Your task to perform on an android device: turn off priority inbox in the gmail app Image 0: 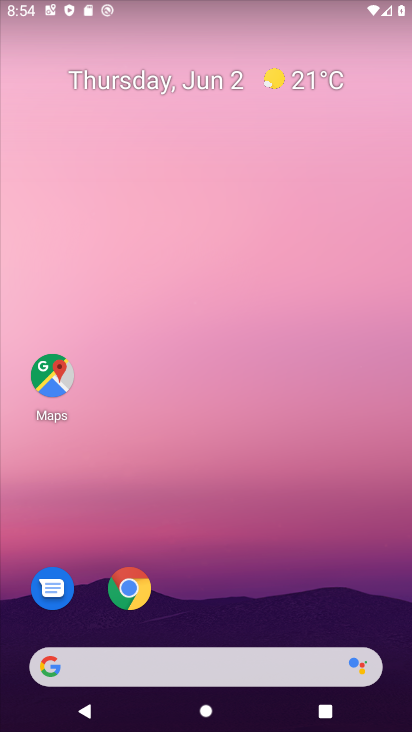
Step 0: press home button
Your task to perform on an android device: turn off priority inbox in the gmail app Image 1: 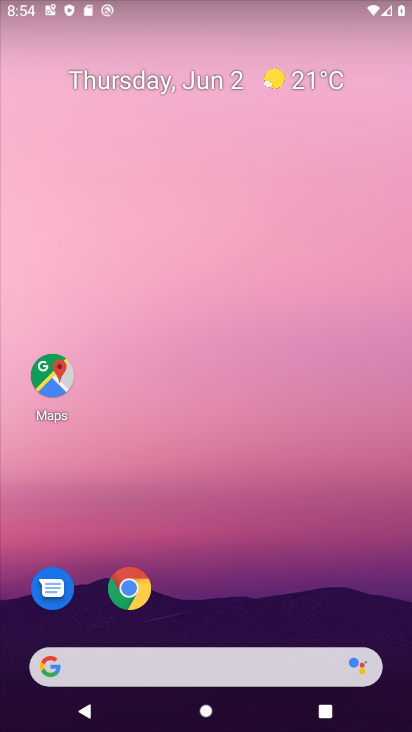
Step 1: drag from (210, 659) to (197, 136)
Your task to perform on an android device: turn off priority inbox in the gmail app Image 2: 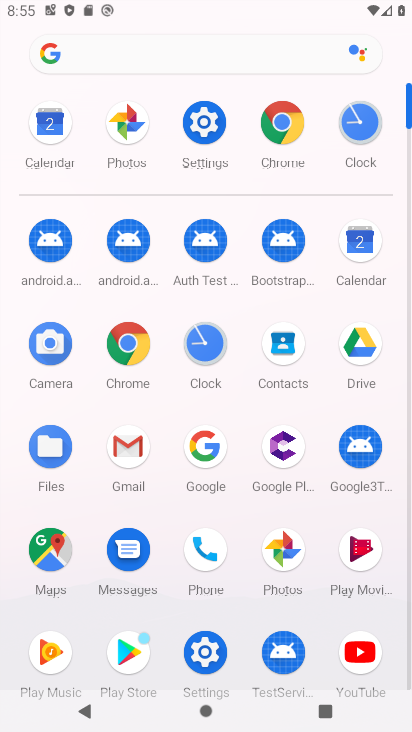
Step 2: click (131, 449)
Your task to perform on an android device: turn off priority inbox in the gmail app Image 3: 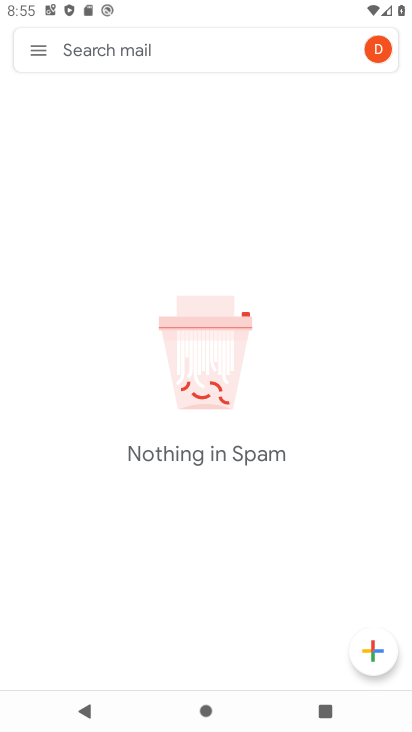
Step 3: click (34, 51)
Your task to perform on an android device: turn off priority inbox in the gmail app Image 4: 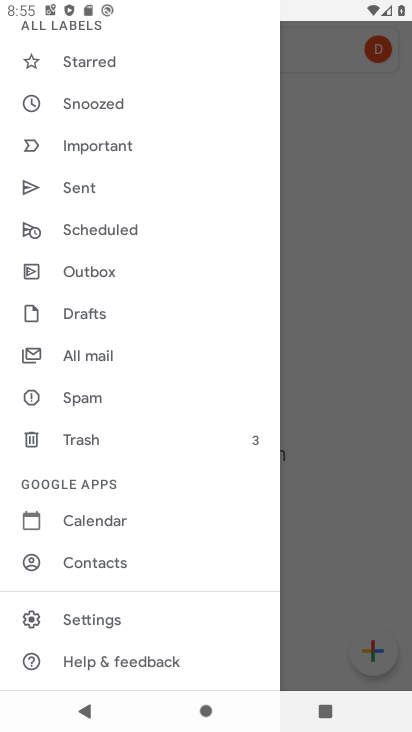
Step 4: click (102, 616)
Your task to perform on an android device: turn off priority inbox in the gmail app Image 5: 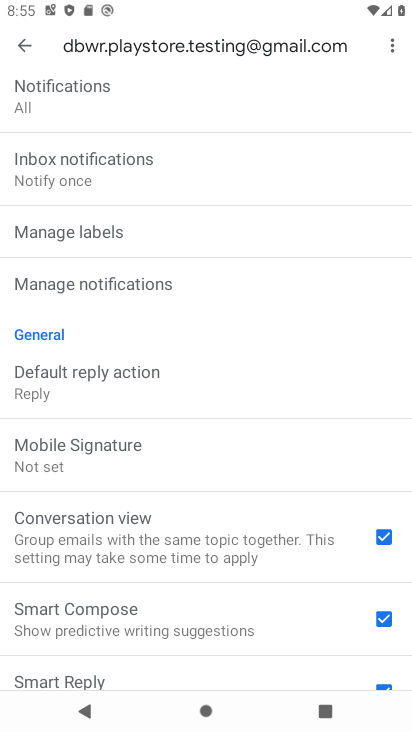
Step 5: drag from (149, 187) to (175, 729)
Your task to perform on an android device: turn off priority inbox in the gmail app Image 6: 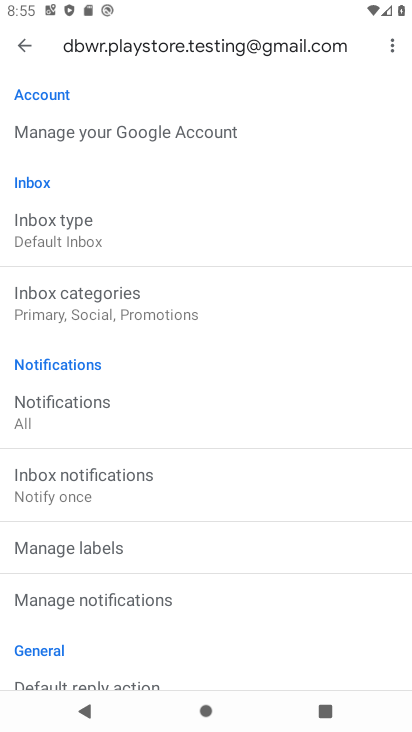
Step 6: click (60, 231)
Your task to perform on an android device: turn off priority inbox in the gmail app Image 7: 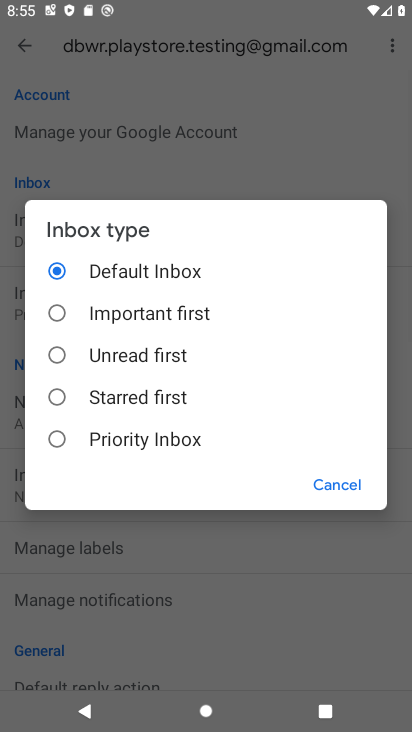
Step 7: click (139, 268)
Your task to perform on an android device: turn off priority inbox in the gmail app Image 8: 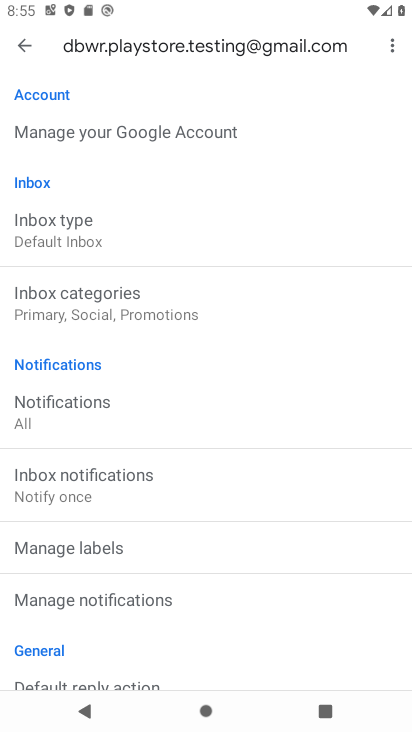
Step 8: task complete